Your task to perform on an android device: add a contact in the contacts app Image 0: 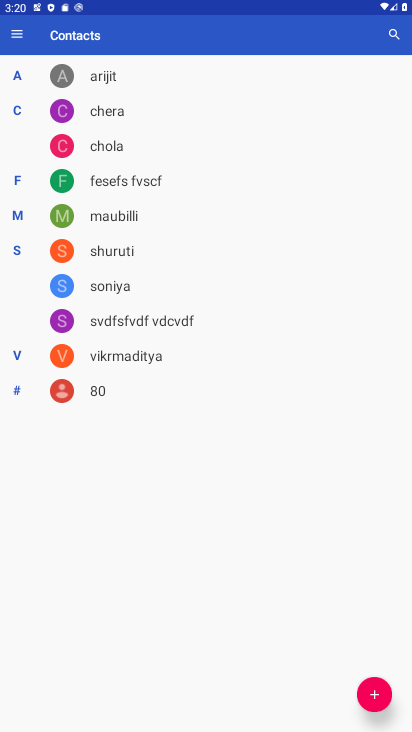
Step 0: press home button
Your task to perform on an android device: add a contact in the contacts app Image 1: 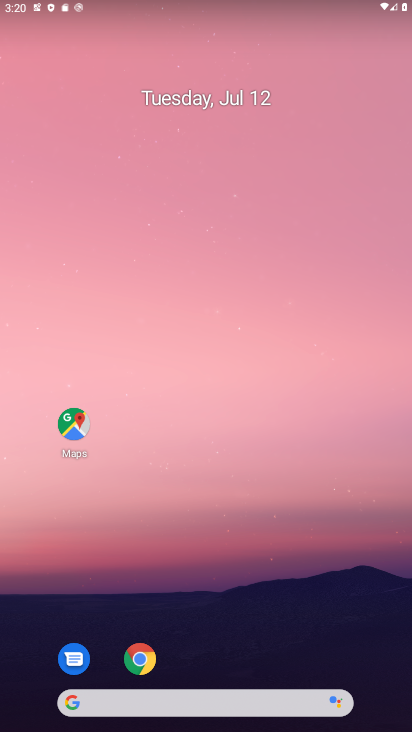
Step 1: drag from (211, 727) to (211, 190)
Your task to perform on an android device: add a contact in the contacts app Image 2: 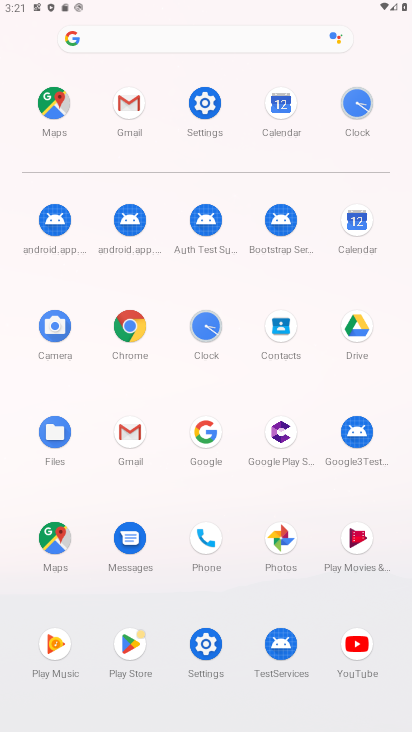
Step 2: click (282, 325)
Your task to perform on an android device: add a contact in the contacts app Image 3: 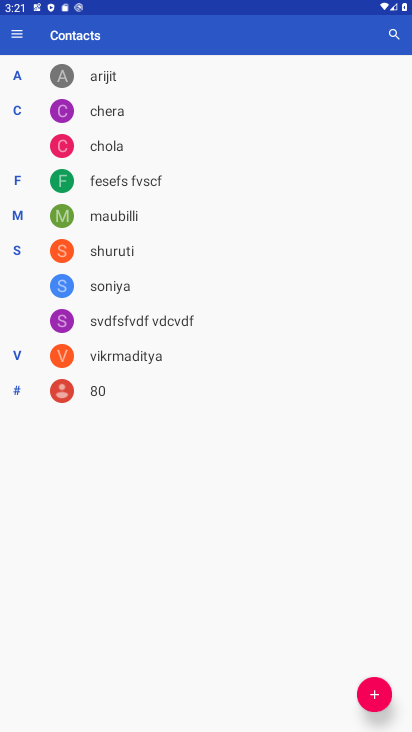
Step 3: click (380, 690)
Your task to perform on an android device: add a contact in the contacts app Image 4: 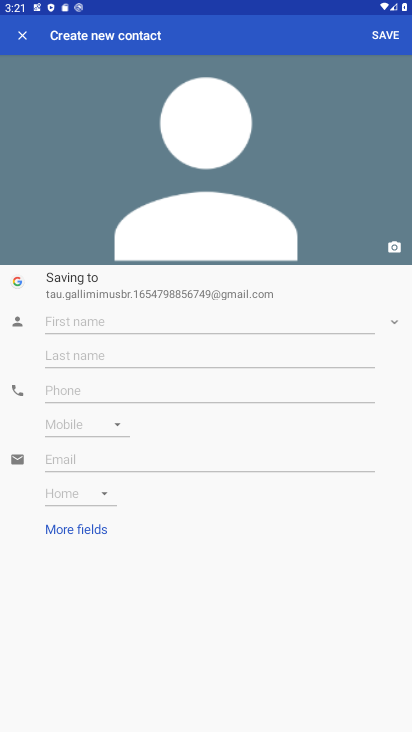
Step 4: click (99, 317)
Your task to perform on an android device: add a contact in the contacts app Image 5: 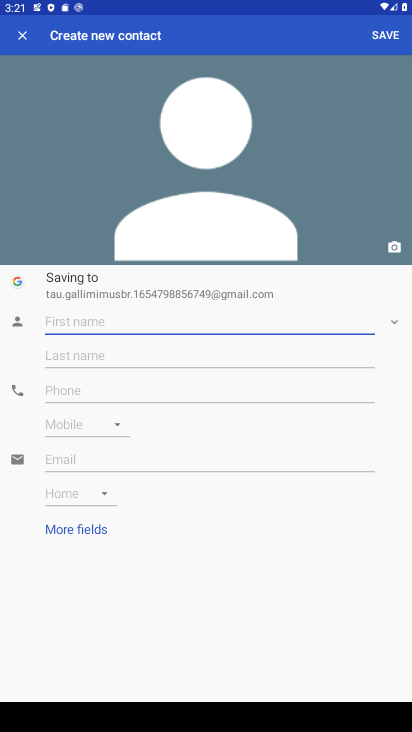
Step 5: type "veer"
Your task to perform on an android device: add a contact in the contacts app Image 6: 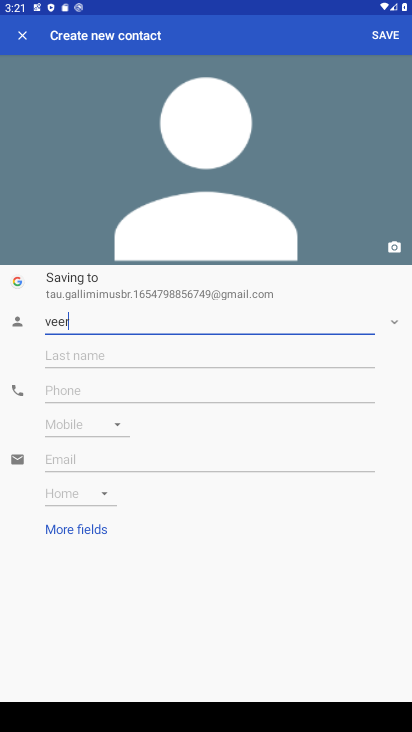
Step 6: type ""
Your task to perform on an android device: add a contact in the contacts app Image 7: 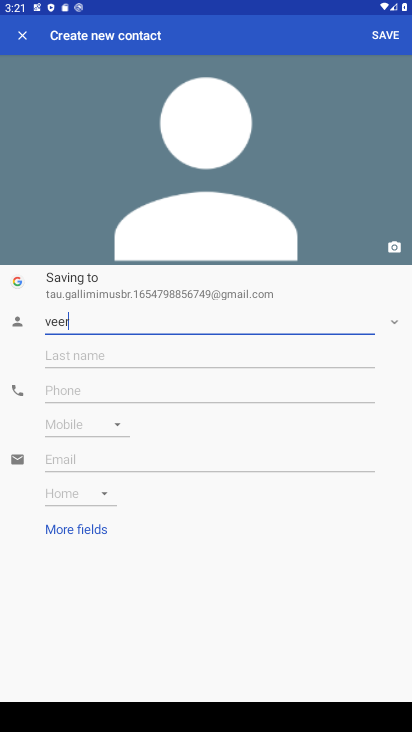
Step 7: click (84, 386)
Your task to perform on an android device: add a contact in the contacts app Image 8: 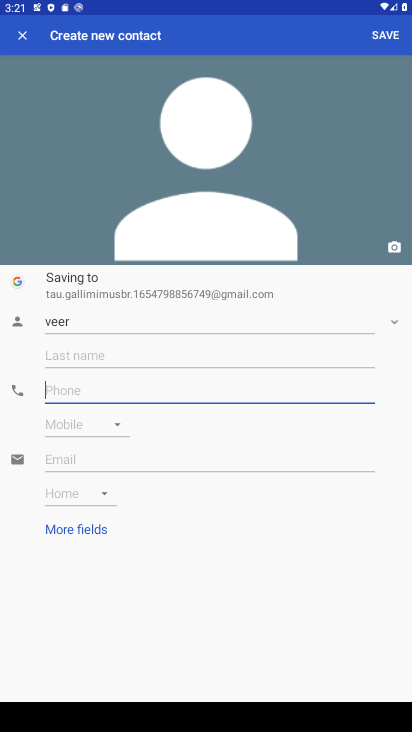
Step 8: type "88888"
Your task to perform on an android device: add a contact in the contacts app Image 9: 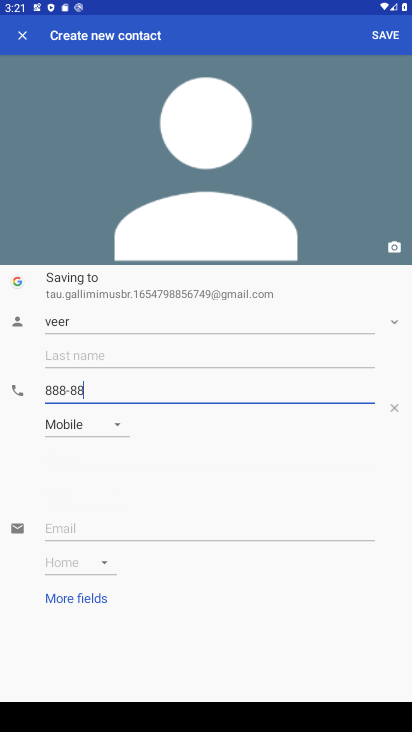
Step 9: type ""
Your task to perform on an android device: add a contact in the contacts app Image 10: 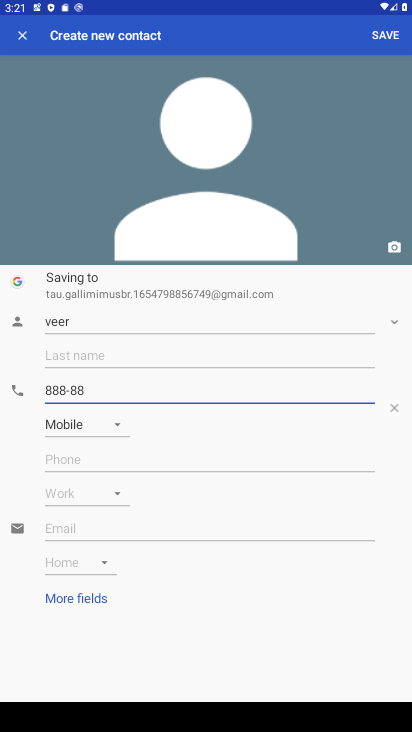
Step 10: click (382, 40)
Your task to perform on an android device: add a contact in the contacts app Image 11: 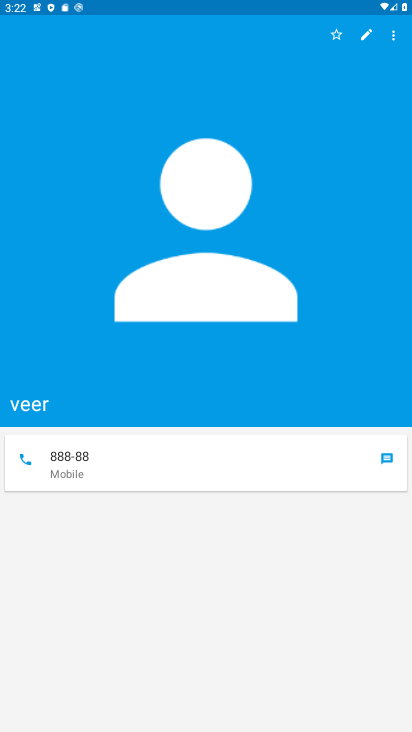
Step 11: task complete